Your task to perform on an android device: toggle pop-ups in chrome Image 0: 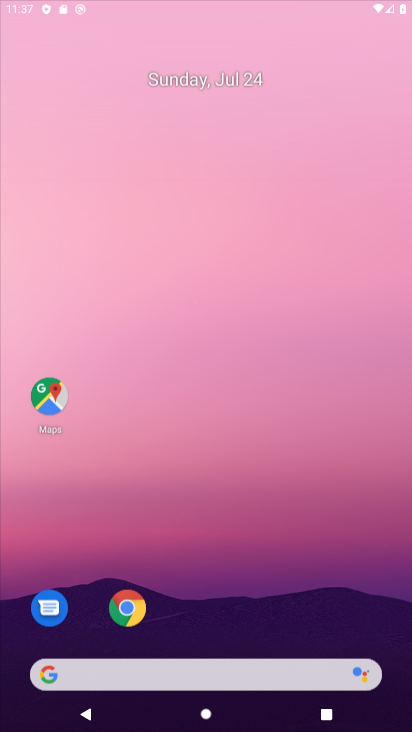
Step 0: press back button
Your task to perform on an android device: toggle pop-ups in chrome Image 1: 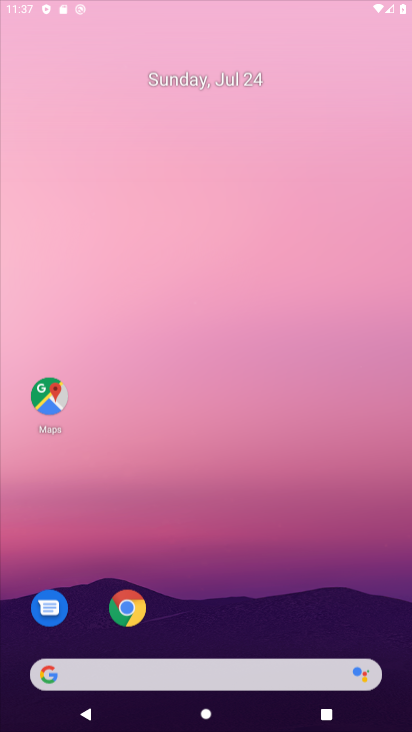
Step 1: press home button
Your task to perform on an android device: toggle pop-ups in chrome Image 2: 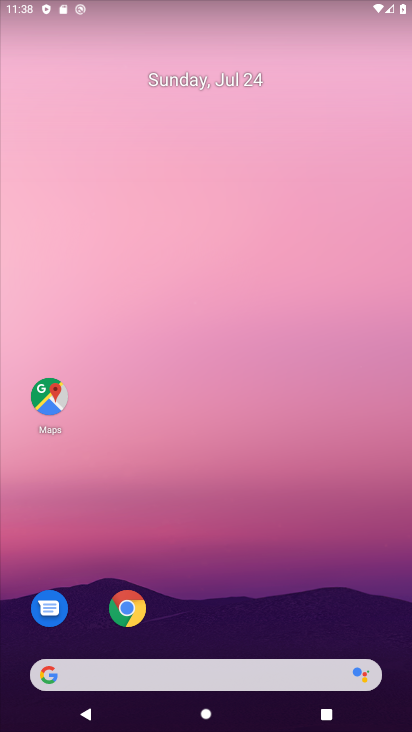
Step 2: click (129, 609)
Your task to perform on an android device: toggle pop-ups in chrome Image 3: 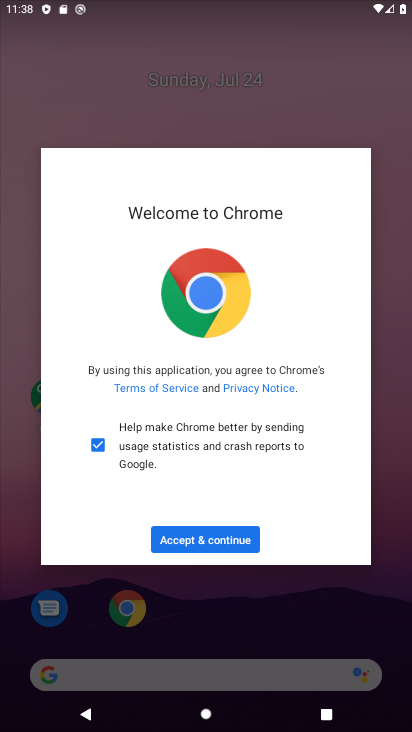
Step 3: click (200, 538)
Your task to perform on an android device: toggle pop-ups in chrome Image 4: 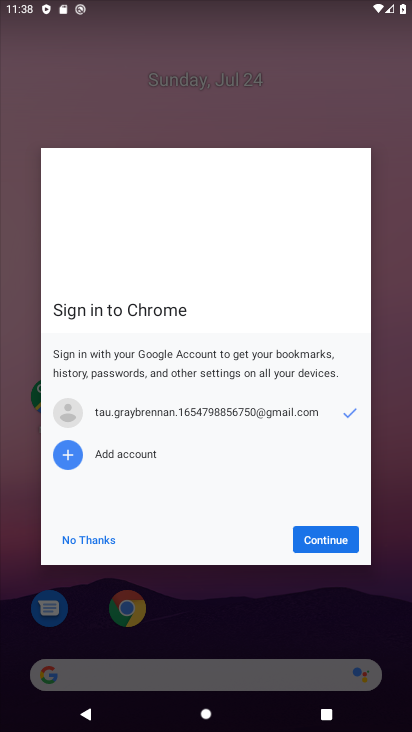
Step 4: click (61, 534)
Your task to perform on an android device: toggle pop-ups in chrome Image 5: 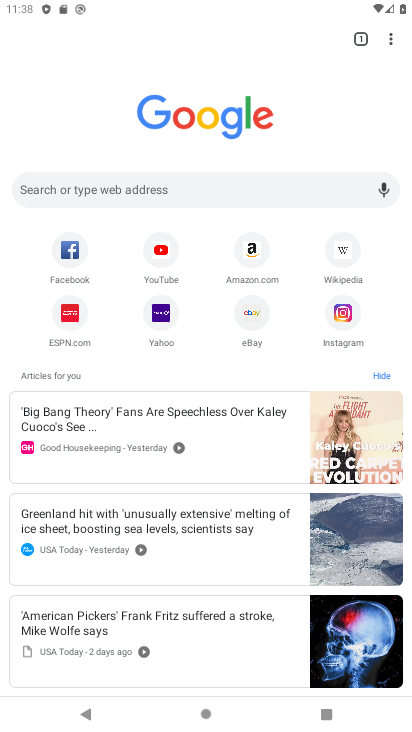
Step 5: click (390, 36)
Your task to perform on an android device: toggle pop-ups in chrome Image 6: 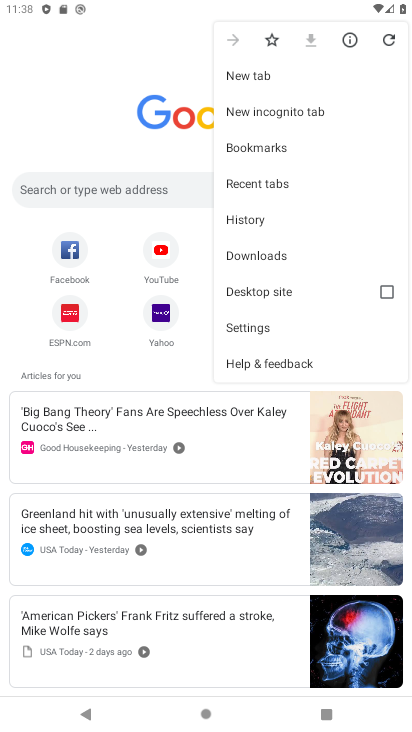
Step 6: click (257, 326)
Your task to perform on an android device: toggle pop-ups in chrome Image 7: 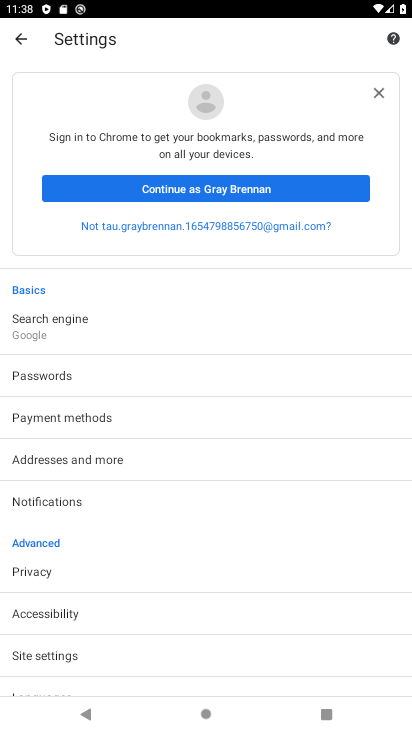
Step 7: click (76, 654)
Your task to perform on an android device: toggle pop-ups in chrome Image 8: 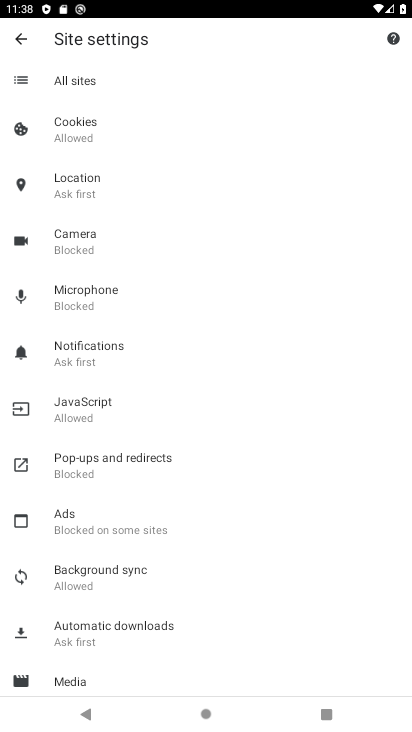
Step 8: click (82, 468)
Your task to perform on an android device: toggle pop-ups in chrome Image 9: 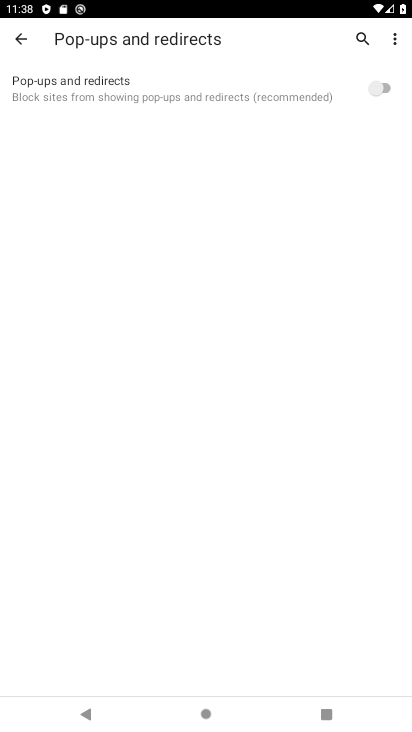
Step 9: click (377, 86)
Your task to perform on an android device: toggle pop-ups in chrome Image 10: 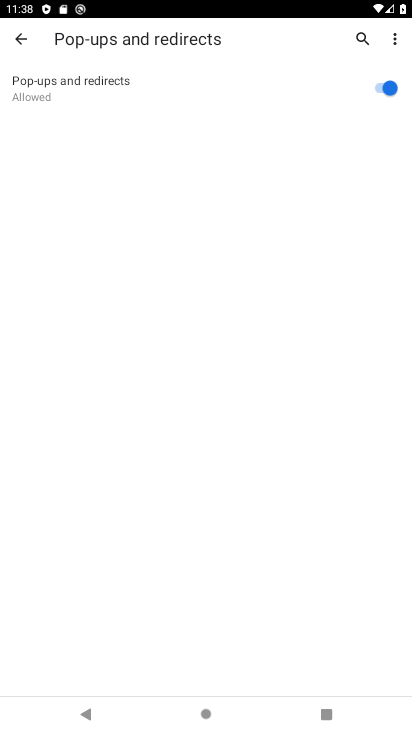
Step 10: task complete